Your task to perform on an android device: Open Youtube and go to "Your channel" Image 0: 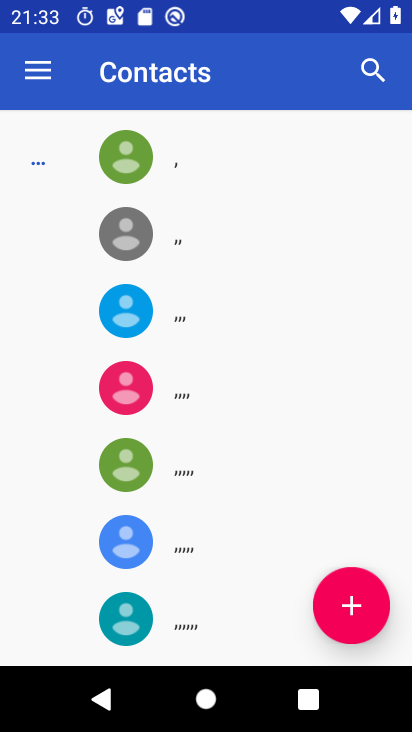
Step 0: press home button
Your task to perform on an android device: Open Youtube and go to "Your channel" Image 1: 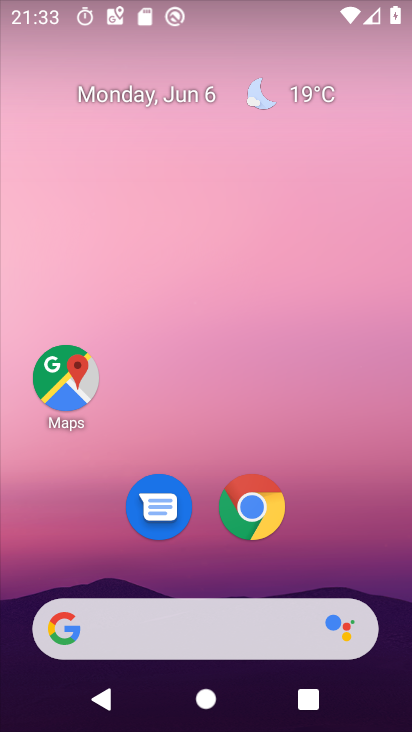
Step 1: drag from (364, 553) to (326, 366)
Your task to perform on an android device: Open Youtube and go to "Your channel" Image 2: 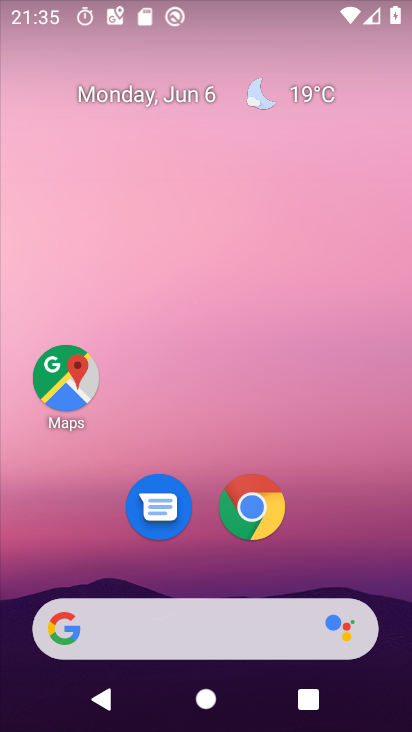
Step 2: drag from (317, 560) to (199, 108)
Your task to perform on an android device: Open Youtube and go to "Your channel" Image 3: 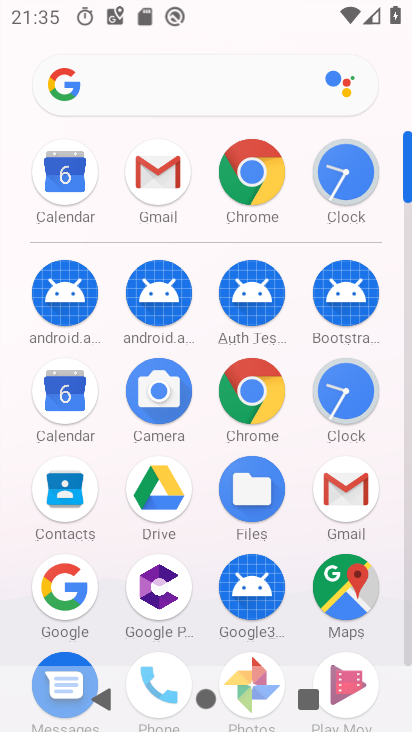
Step 3: drag from (293, 650) to (212, 0)
Your task to perform on an android device: Open Youtube and go to "Your channel" Image 4: 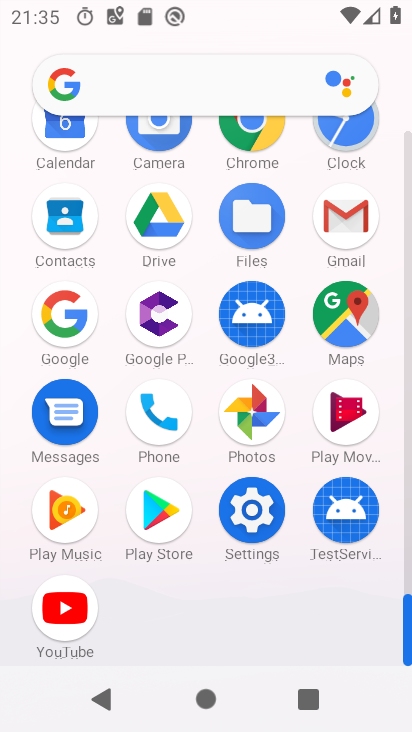
Step 4: click (70, 604)
Your task to perform on an android device: Open Youtube and go to "Your channel" Image 5: 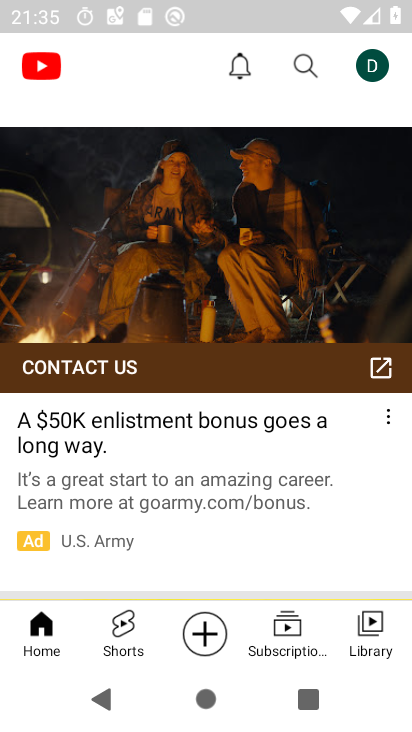
Step 5: click (367, 78)
Your task to perform on an android device: Open Youtube and go to "Your channel" Image 6: 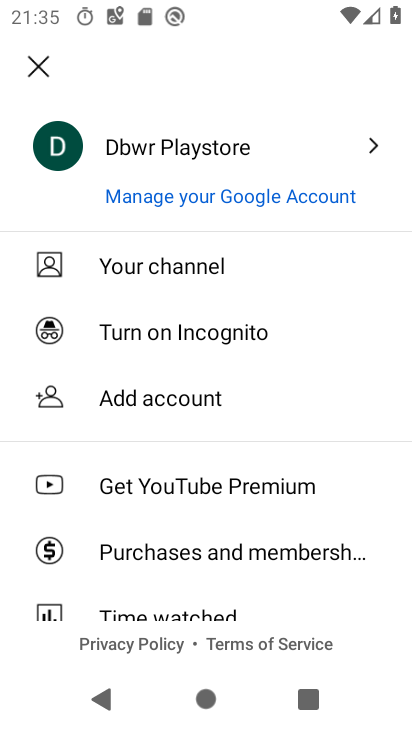
Step 6: click (154, 247)
Your task to perform on an android device: Open Youtube and go to "Your channel" Image 7: 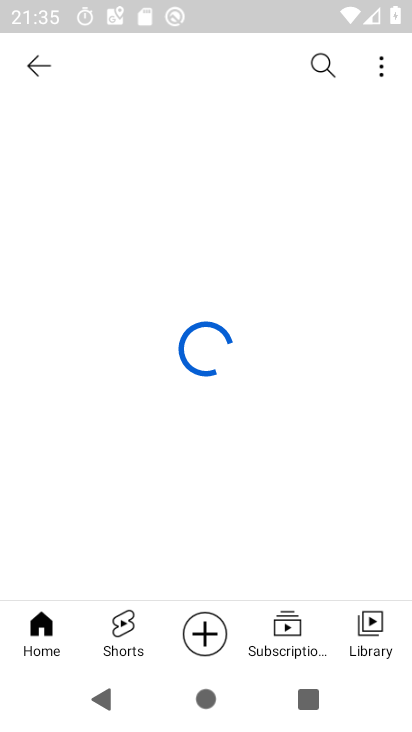
Step 7: task complete